Your task to perform on an android device: delete location history Image 0: 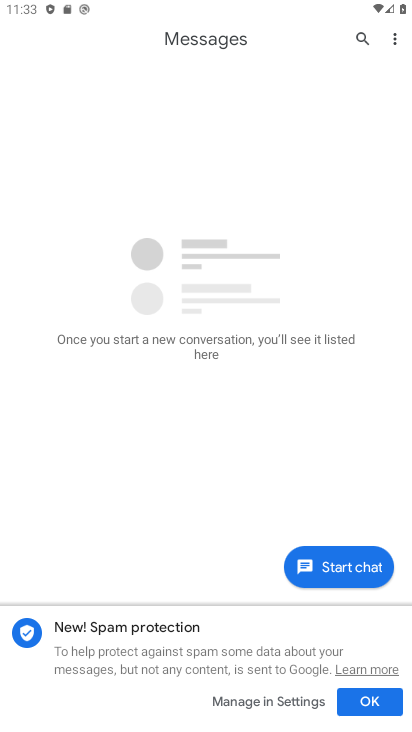
Step 0: press home button
Your task to perform on an android device: delete location history Image 1: 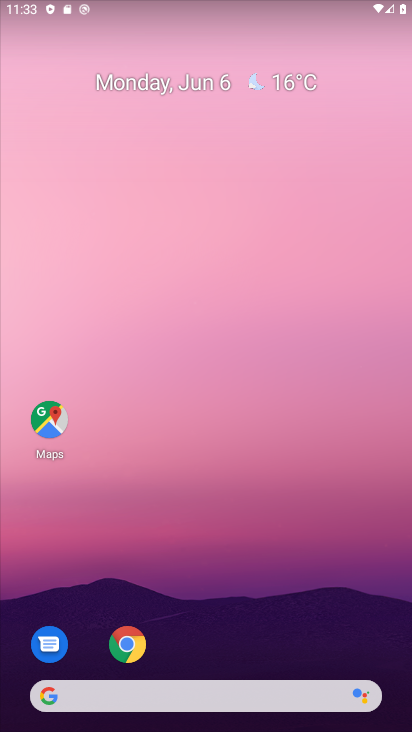
Step 1: drag from (196, 648) to (248, 222)
Your task to perform on an android device: delete location history Image 2: 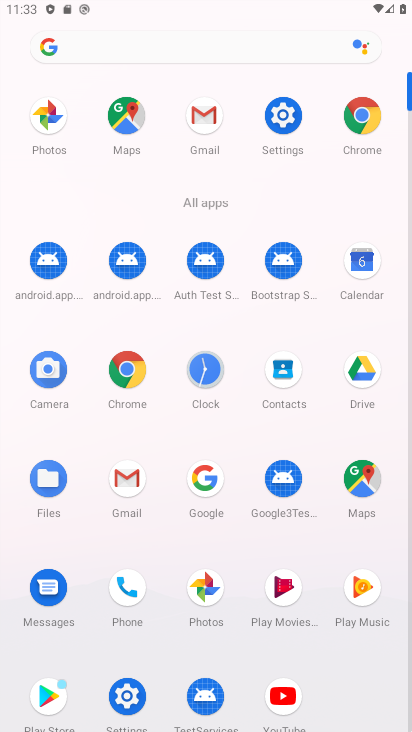
Step 2: click (120, 695)
Your task to perform on an android device: delete location history Image 3: 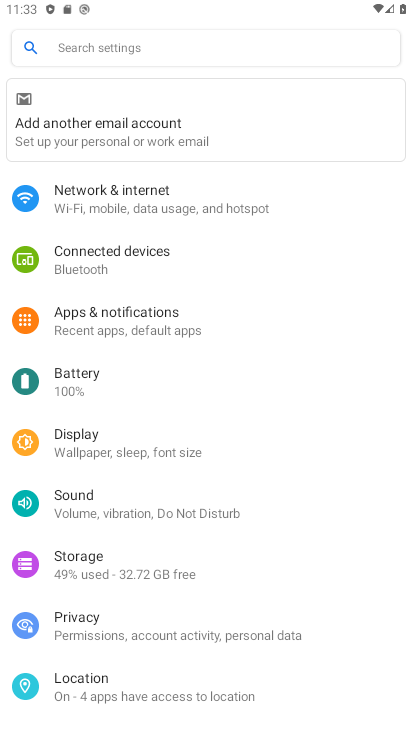
Step 3: click (98, 681)
Your task to perform on an android device: delete location history Image 4: 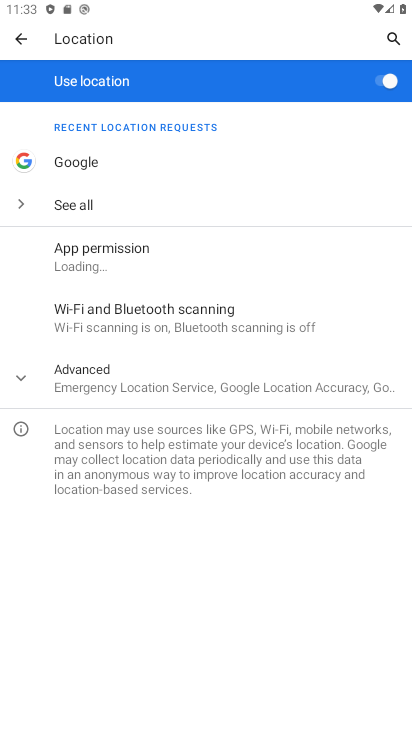
Step 4: click (225, 370)
Your task to perform on an android device: delete location history Image 5: 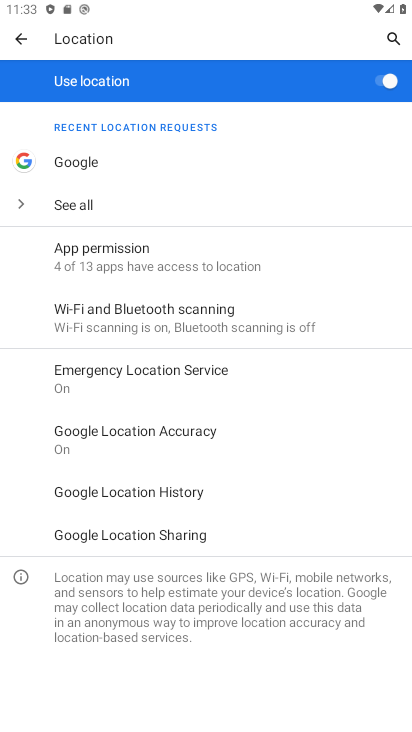
Step 5: click (189, 501)
Your task to perform on an android device: delete location history Image 6: 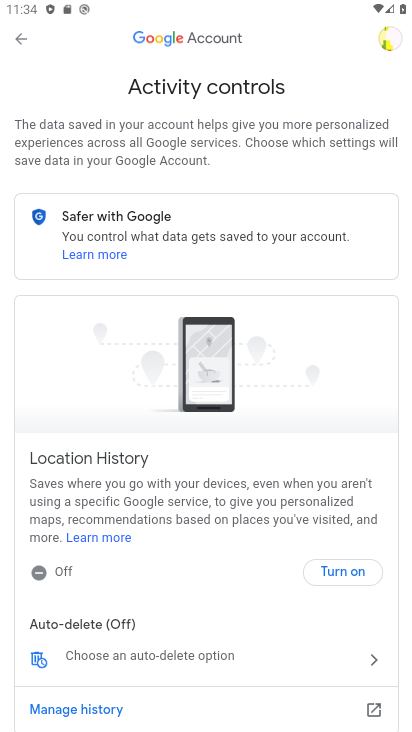
Step 6: drag from (155, 671) to (202, 474)
Your task to perform on an android device: delete location history Image 7: 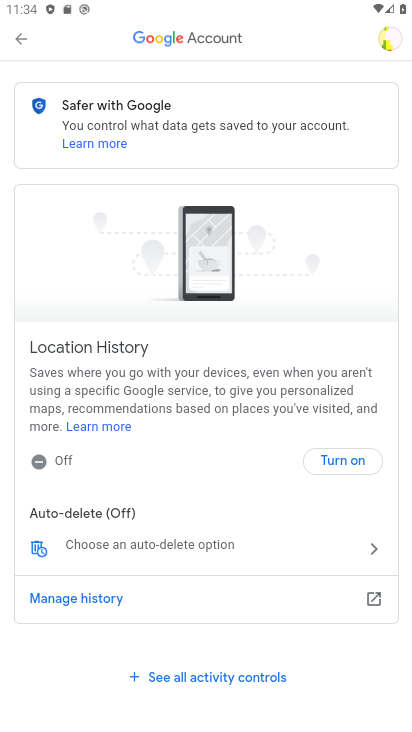
Step 7: click (76, 599)
Your task to perform on an android device: delete location history Image 8: 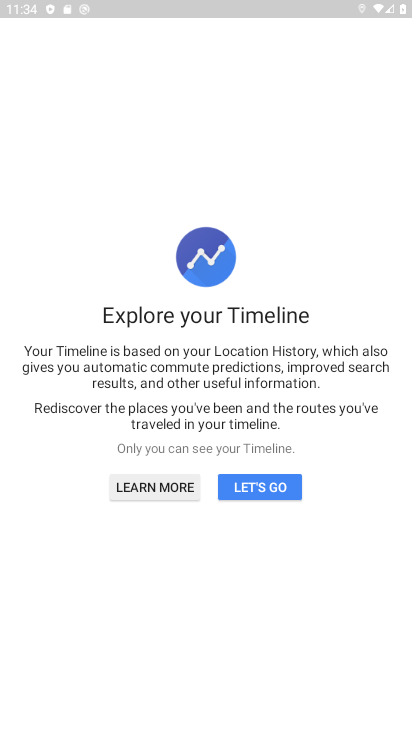
Step 8: click (285, 471)
Your task to perform on an android device: delete location history Image 9: 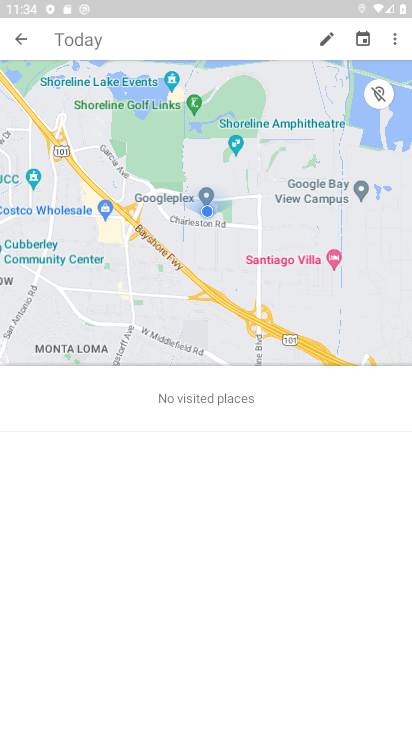
Step 9: task complete